Your task to perform on an android device: set the timer Image 0: 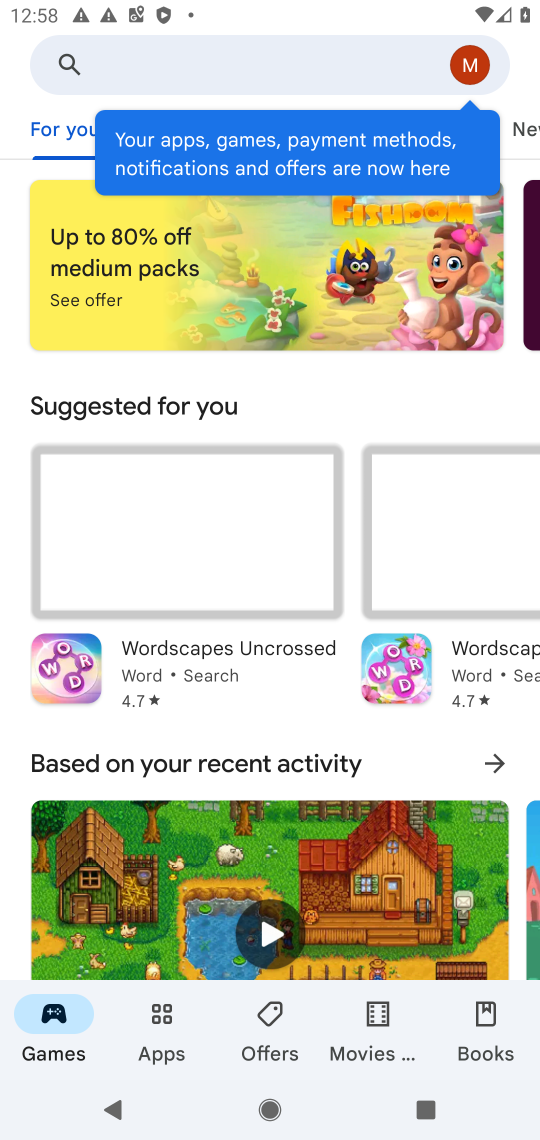
Step 0: press home button
Your task to perform on an android device: set the timer Image 1: 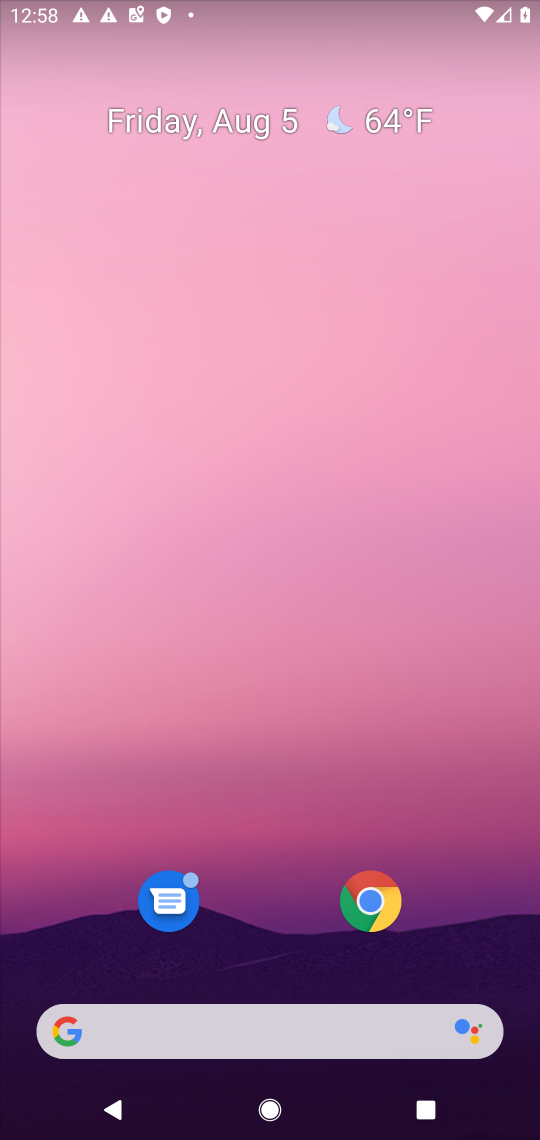
Step 1: drag from (281, 891) to (112, 43)
Your task to perform on an android device: set the timer Image 2: 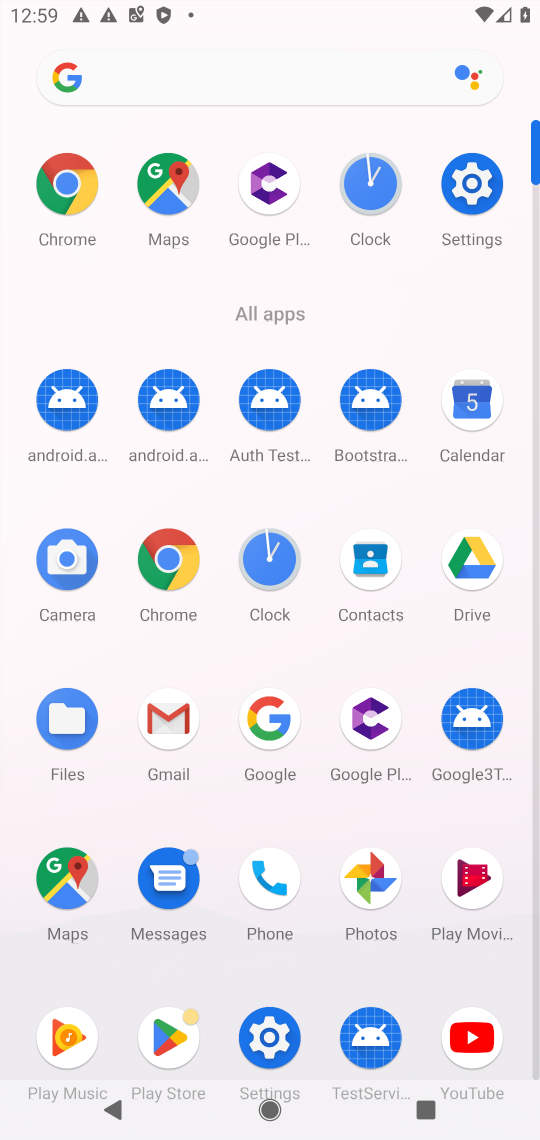
Step 2: click (374, 190)
Your task to perform on an android device: set the timer Image 3: 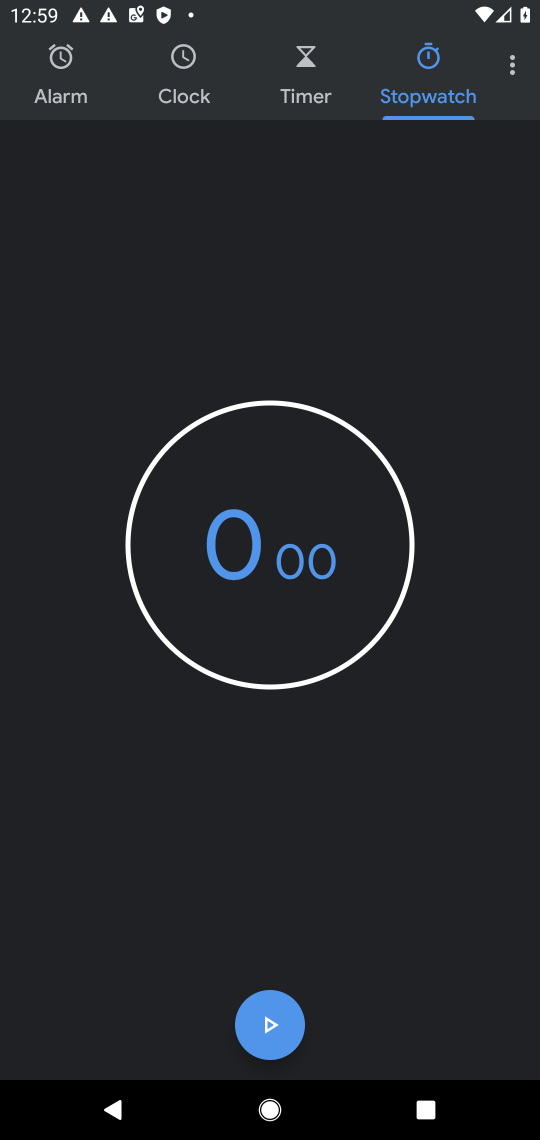
Step 3: click (329, 94)
Your task to perform on an android device: set the timer Image 4: 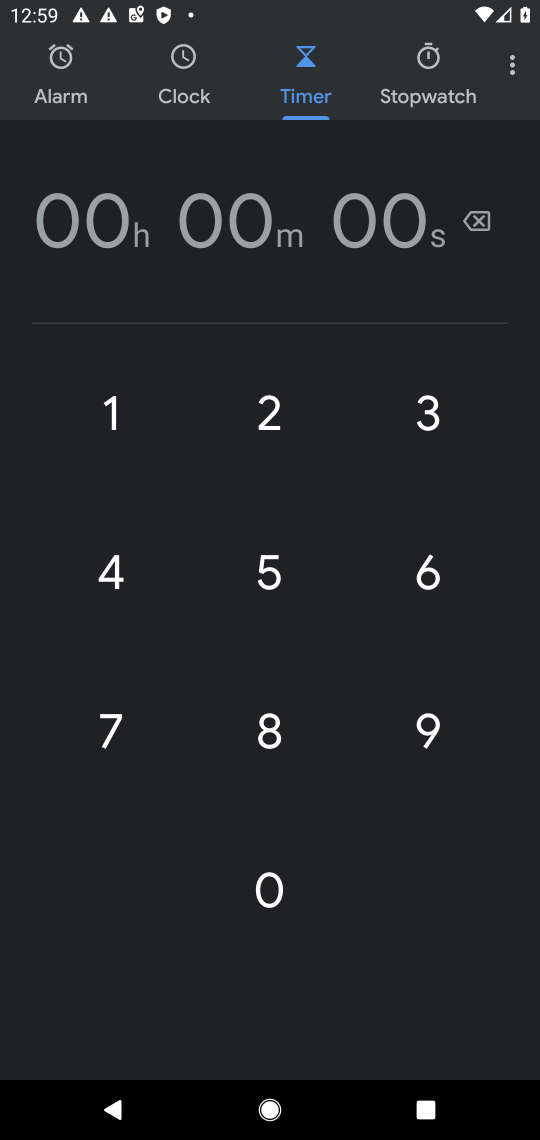
Step 4: click (270, 432)
Your task to perform on an android device: set the timer Image 5: 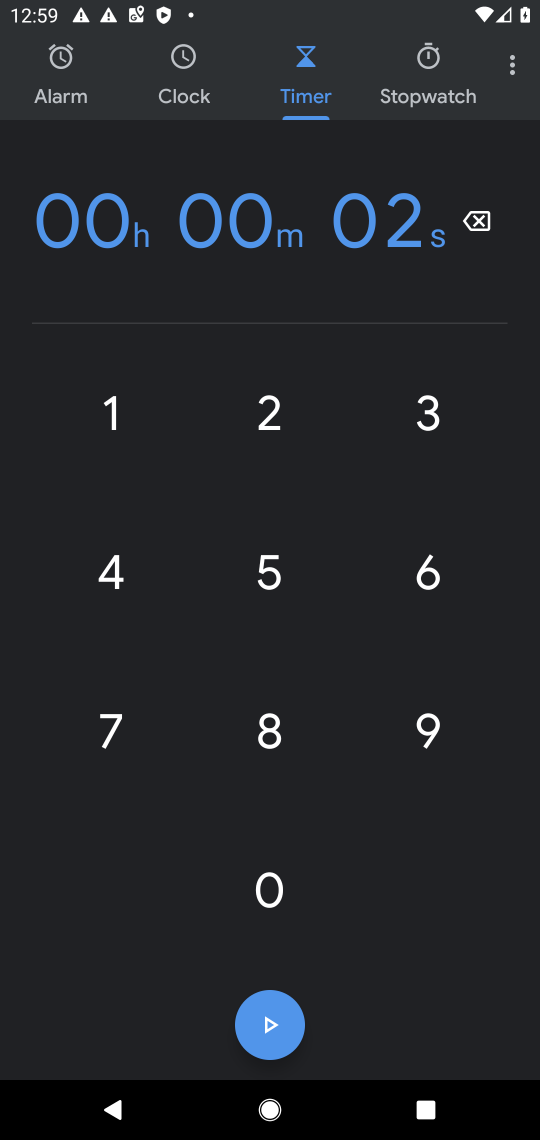
Step 5: click (264, 583)
Your task to perform on an android device: set the timer Image 6: 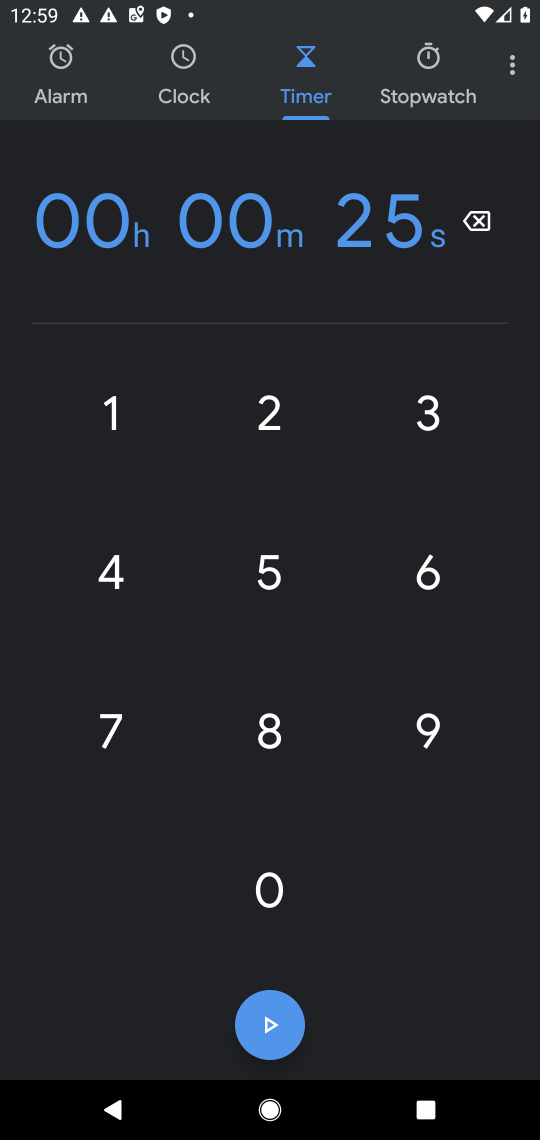
Step 6: click (257, 716)
Your task to perform on an android device: set the timer Image 7: 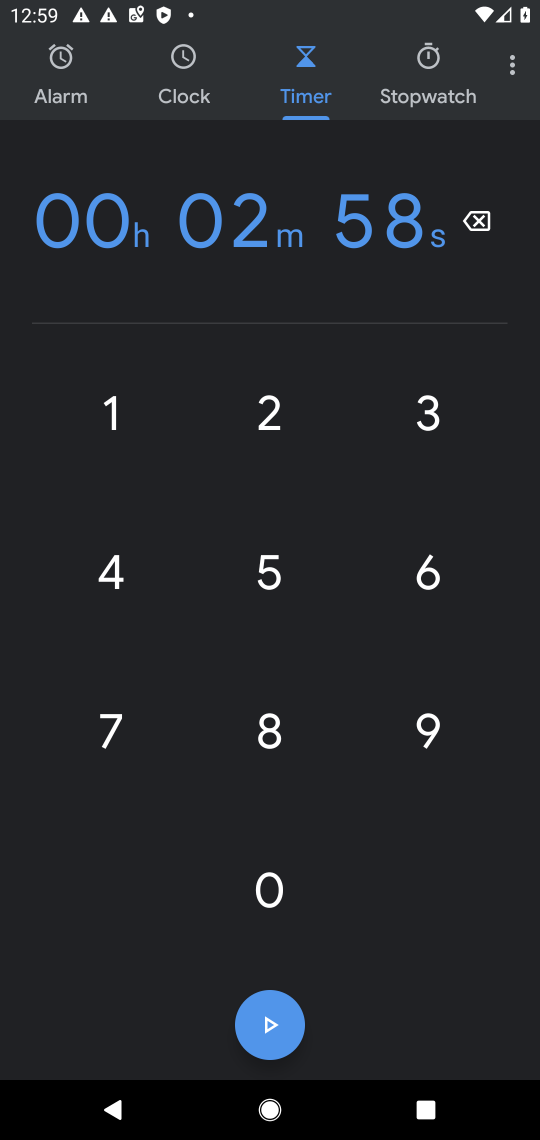
Step 7: click (291, 902)
Your task to perform on an android device: set the timer Image 8: 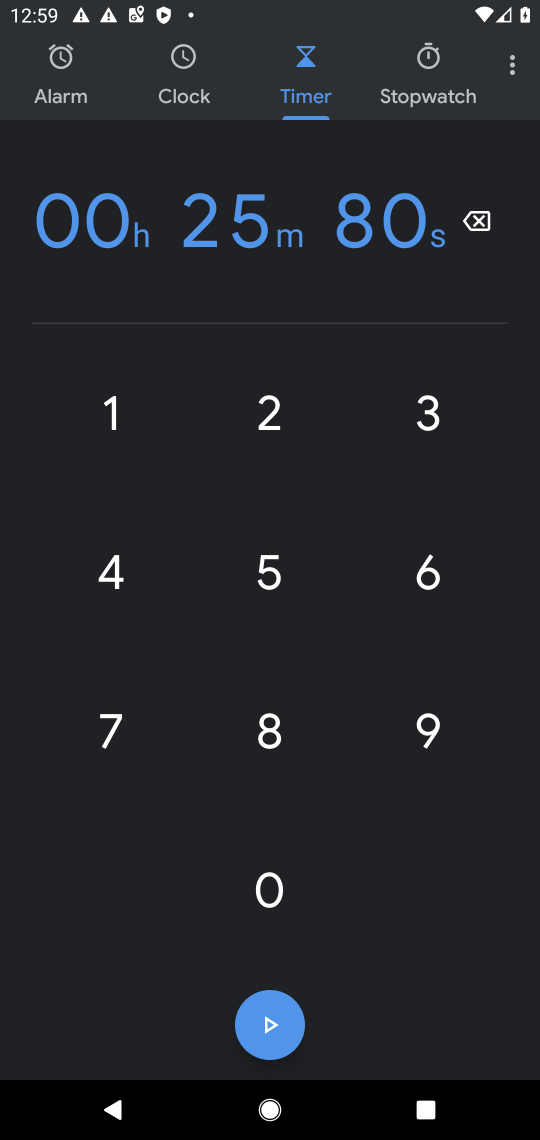
Step 8: click (288, 1030)
Your task to perform on an android device: set the timer Image 9: 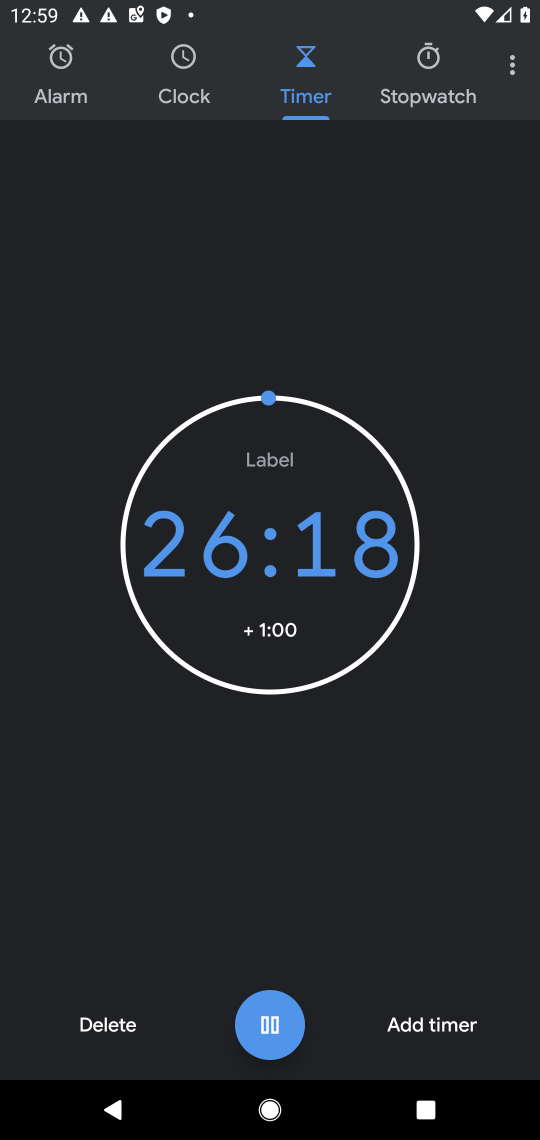
Step 9: task complete